Your task to perform on an android device: toggle notifications settings in the gmail app Image 0: 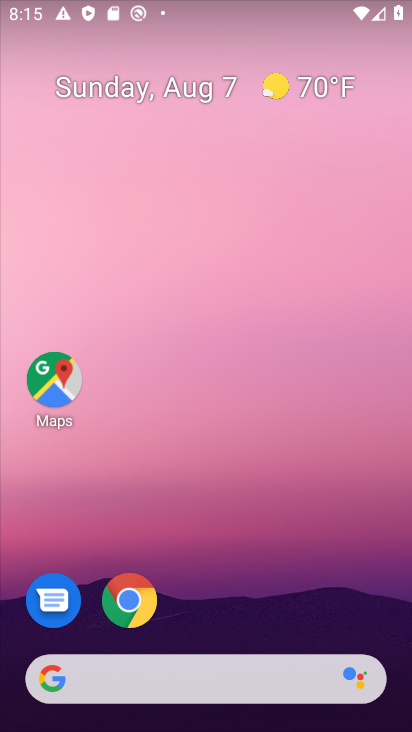
Step 0: drag from (181, 596) to (202, 125)
Your task to perform on an android device: toggle notifications settings in the gmail app Image 1: 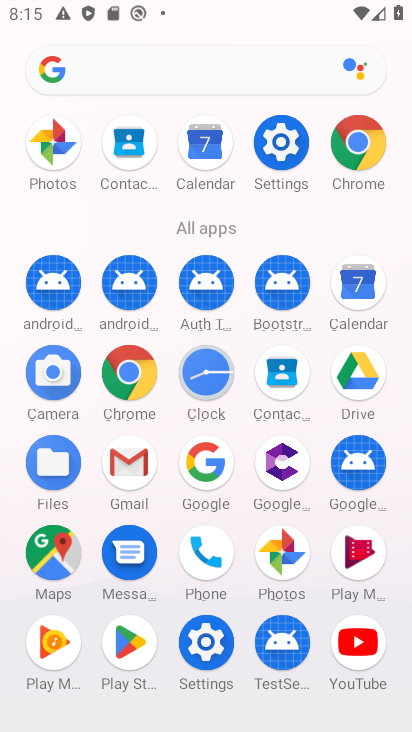
Step 1: click (124, 466)
Your task to perform on an android device: toggle notifications settings in the gmail app Image 2: 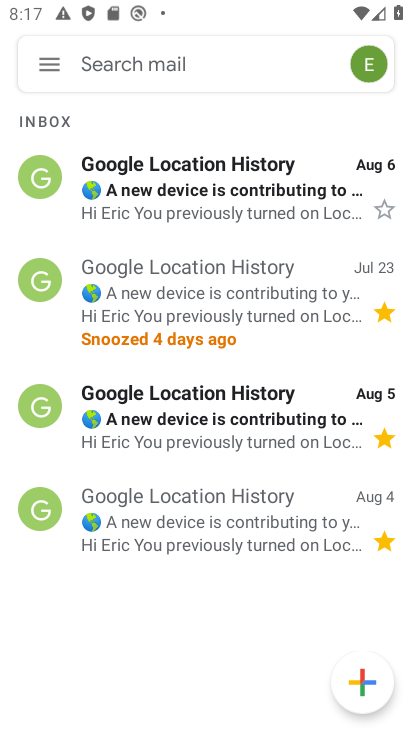
Step 2: click (48, 60)
Your task to perform on an android device: toggle notifications settings in the gmail app Image 3: 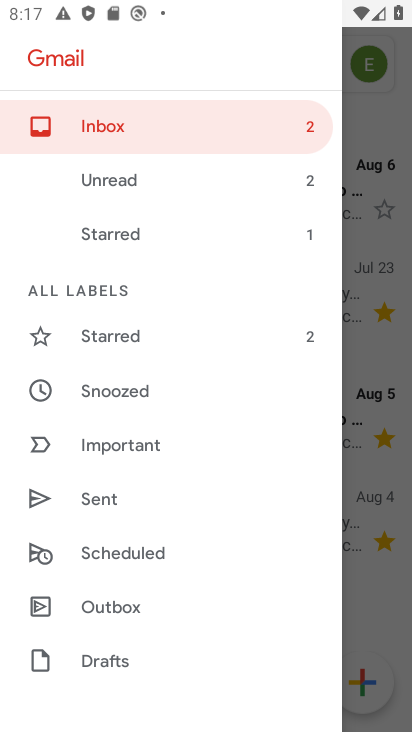
Step 3: drag from (177, 190) to (192, 90)
Your task to perform on an android device: toggle notifications settings in the gmail app Image 4: 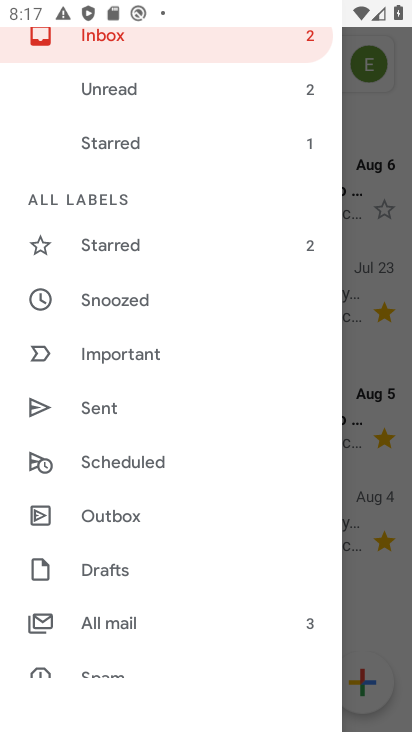
Step 4: drag from (144, 578) to (223, 197)
Your task to perform on an android device: toggle notifications settings in the gmail app Image 5: 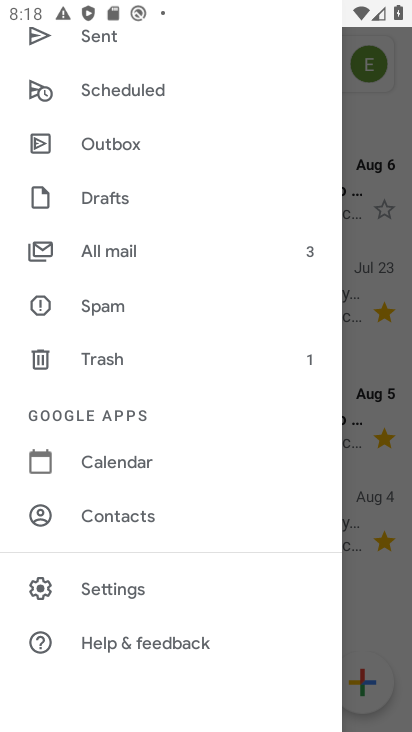
Step 5: click (104, 585)
Your task to perform on an android device: toggle notifications settings in the gmail app Image 6: 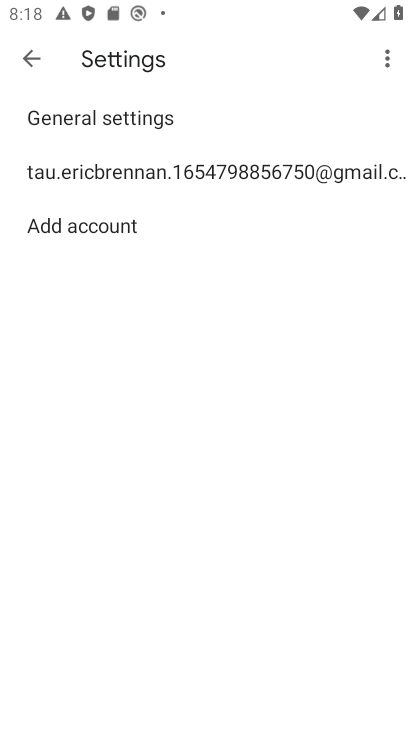
Step 6: click (180, 167)
Your task to perform on an android device: toggle notifications settings in the gmail app Image 7: 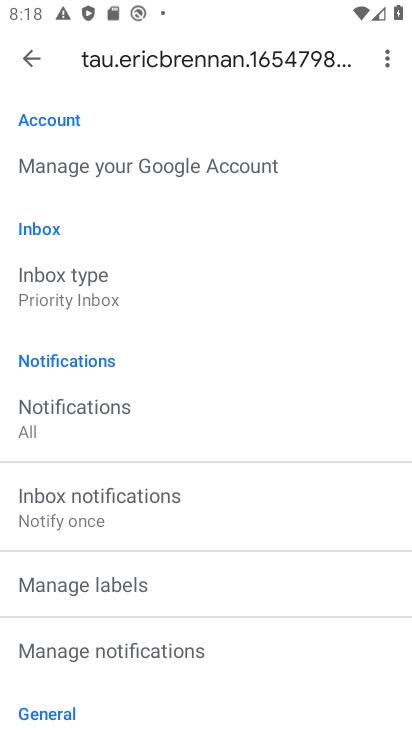
Step 7: click (88, 652)
Your task to perform on an android device: toggle notifications settings in the gmail app Image 8: 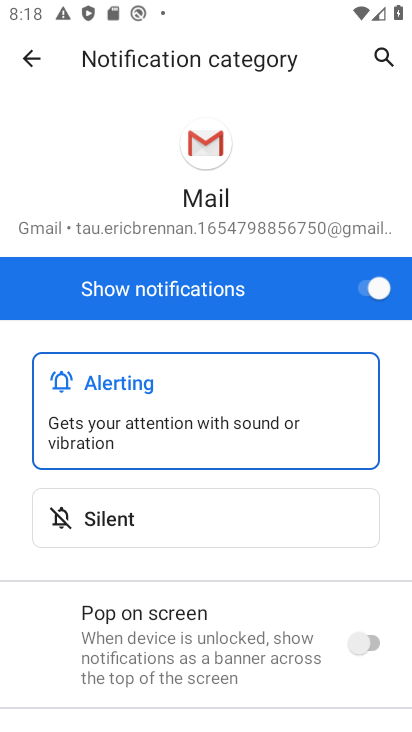
Step 8: click (359, 293)
Your task to perform on an android device: toggle notifications settings in the gmail app Image 9: 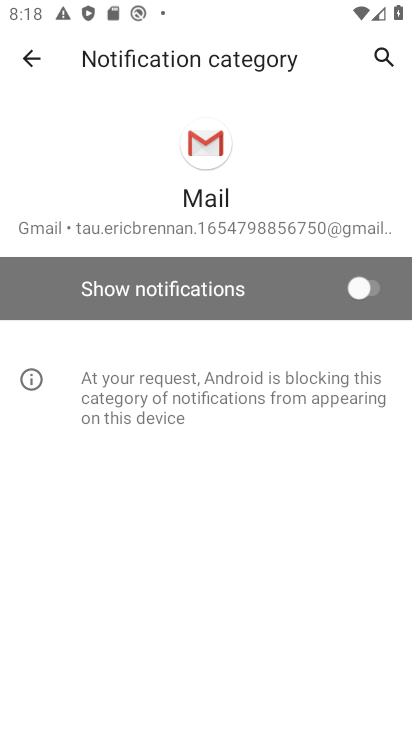
Step 9: task complete